Your task to perform on an android device: Turn on the flashlight Image 0: 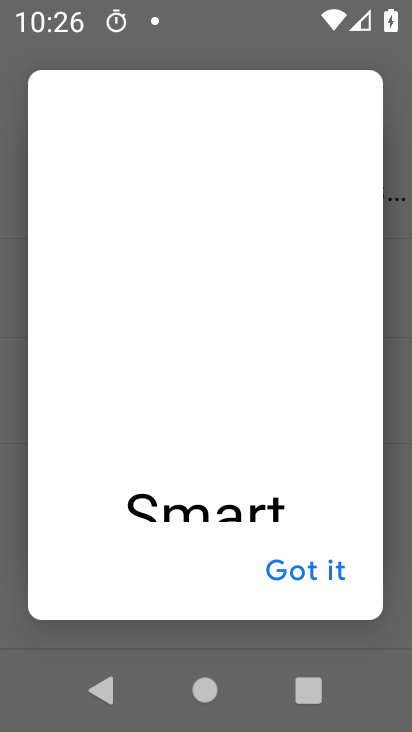
Step 0: press back button
Your task to perform on an android device: Turn on the flashlight Image 1: 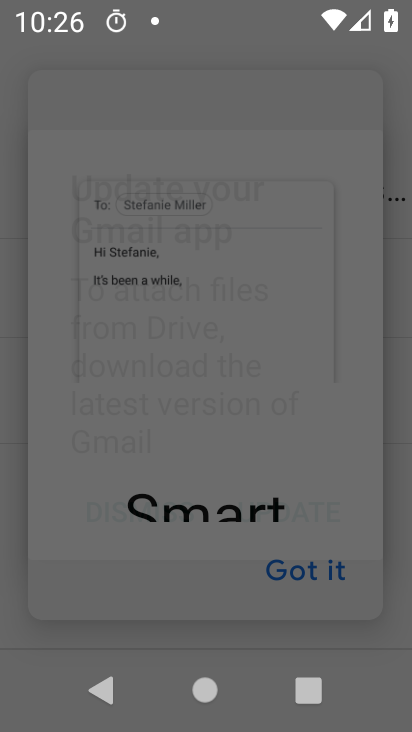
Step 1: press home button
Your task to perform on an android device: Turn on the flashlight Image 2: 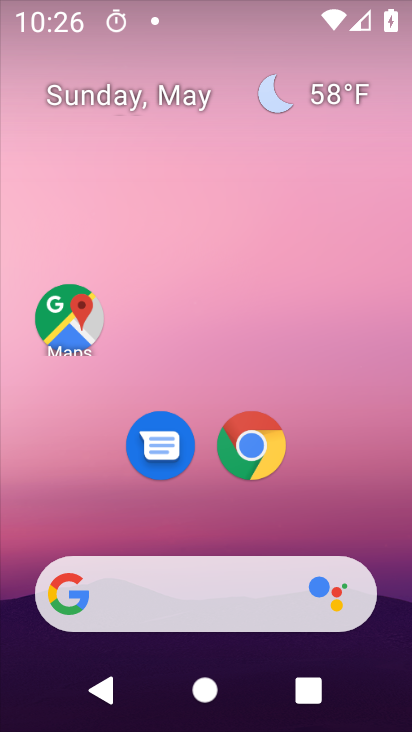
Step 2: drag from (343, 528) to (251, 11)
Your task to perform on an android device: Turn on the flashlight Image 3: 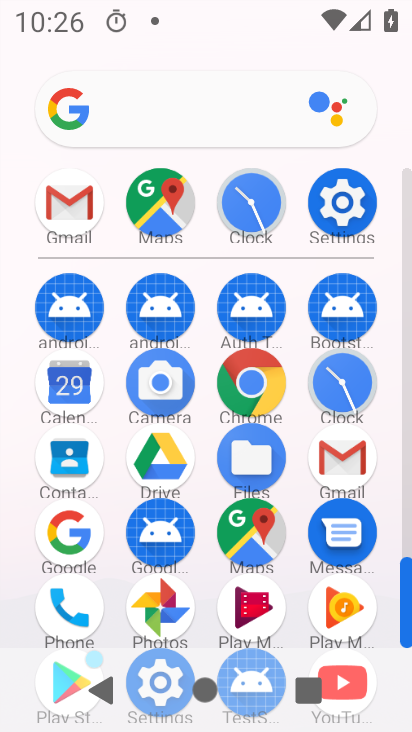
Step 3: drag from (6, 507) to (19, 237)
Your task to perform on an android device: Turn on the flashlight Image 4: 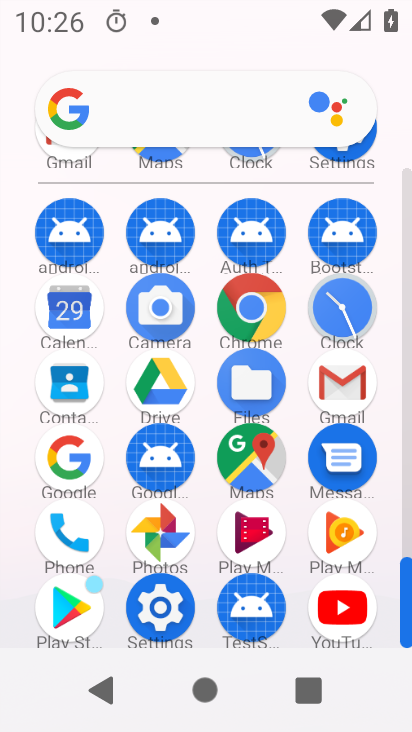
Step 4: click (165, 603)
Your task to perform on an android device: Turn on the flashlight Image 5: 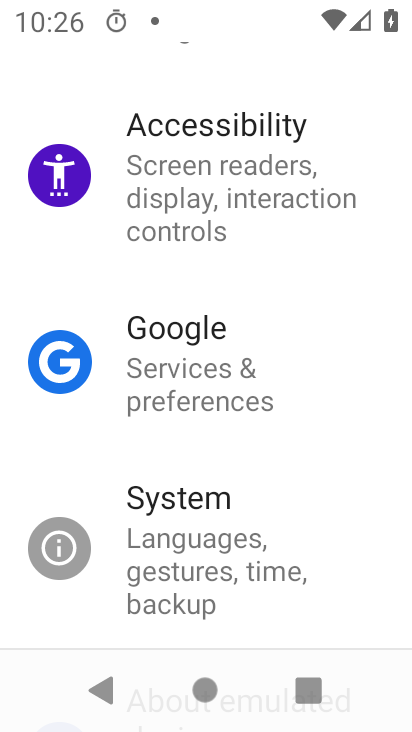
Step 5: drag from (273, 153) to (284, 608)
Your task to perform on an android device: Turn on the flashlight Image 6: 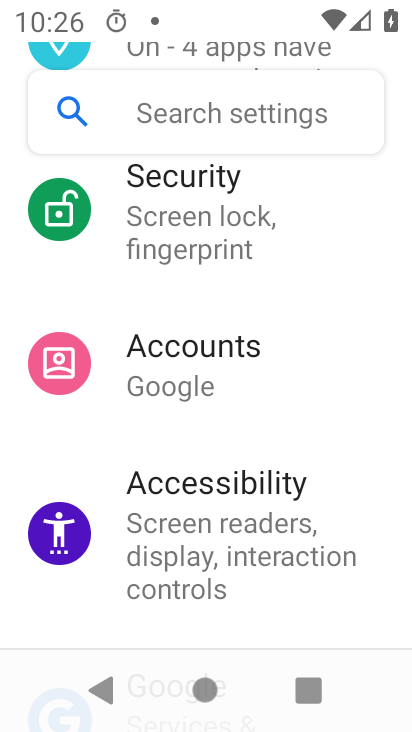
Step 6: drag from (287, 217) to (292, 545)
Your task to perform on an android device: Turn on the flashlight Image 7: 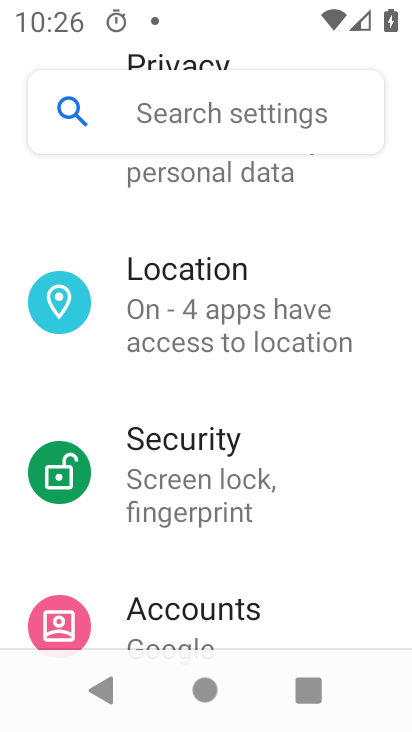
Step 7: drag from (319, 179) to (293, 584)
Your task to perform on an android device: Turn on the flashlight Image 8: 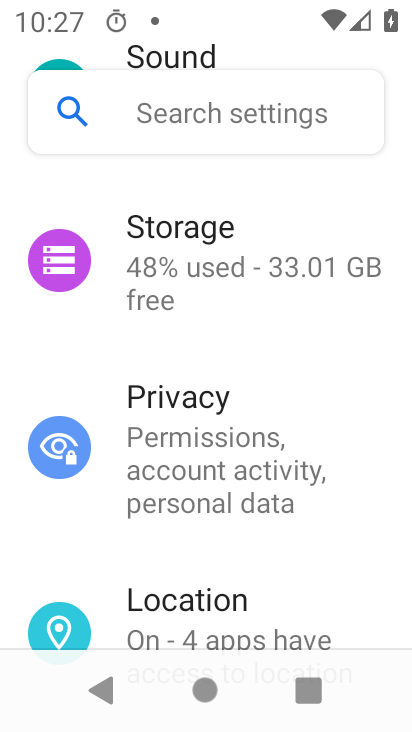
Step 8: drag from (299, 257) to (299, 606)
Your task to perform on an android device: Turn on the flashlight Image 9: 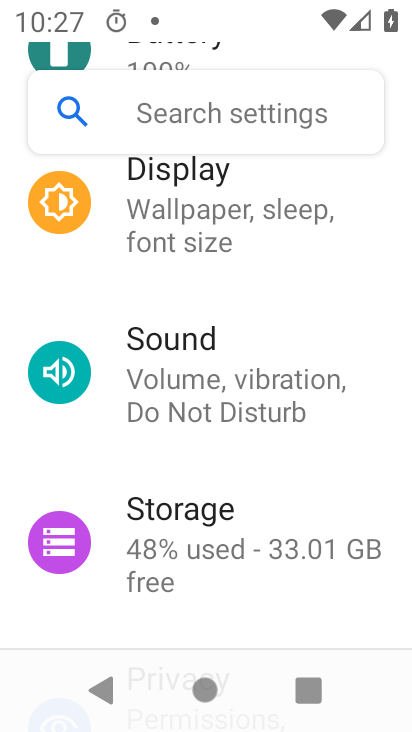
Step 9: drag from (295, 189) to (308, 604)
Your task to perform on an android device: Turn on the flashlight Image 10: 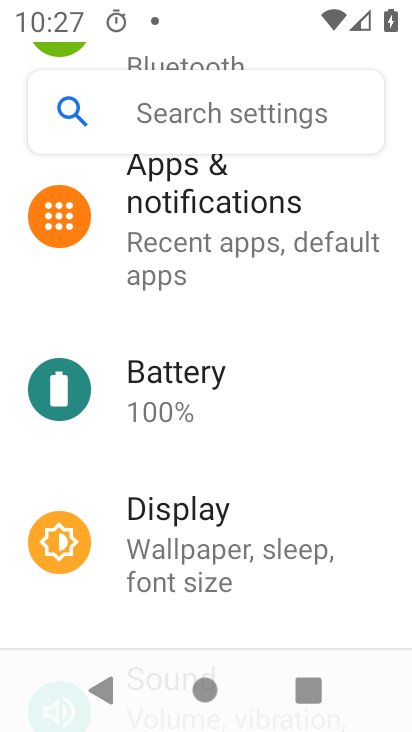
Step 10: drag from (326, 244) to (326, 638)
Your task to perform on an android device: Turn on the flashlight Image 11: 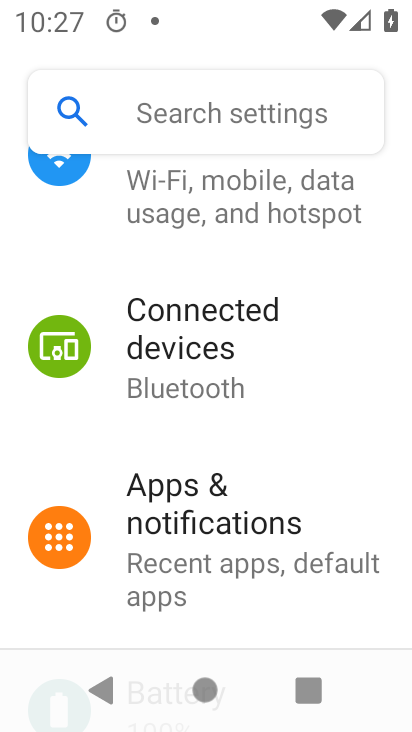
Step 11: drag from (326, 209) to (298, 551)
Your task to perform on an android device: Turn on the flashlight Image 12: 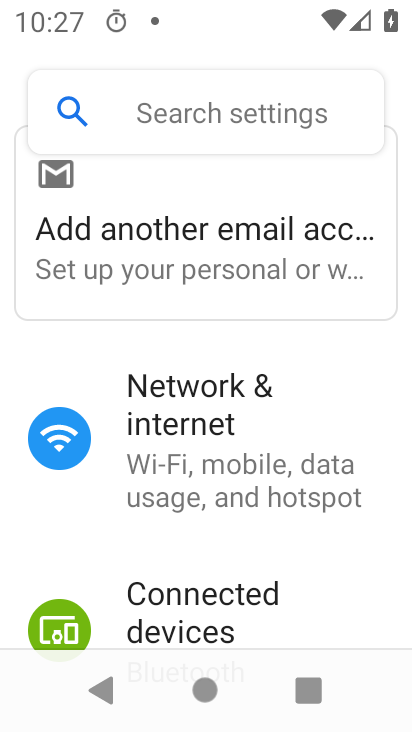
Step 12: click (260, 418)
Your task to perform on an android device: Turn on the flashlight Image 13: 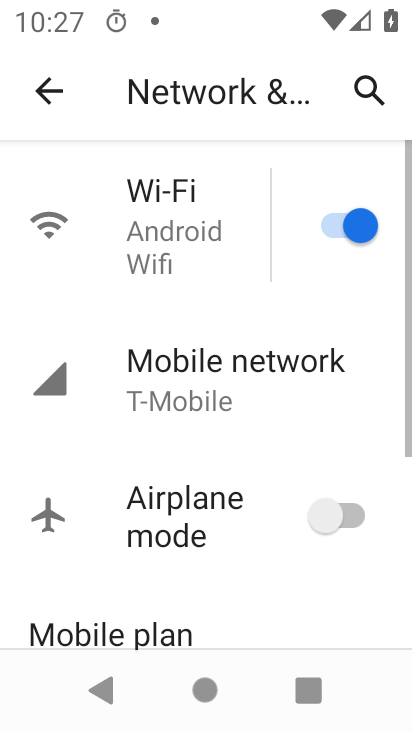
Step 13: drag from (243, 514) to (225, 94)
Your task to perform on an android device: Turn on the flashlight Image 14: 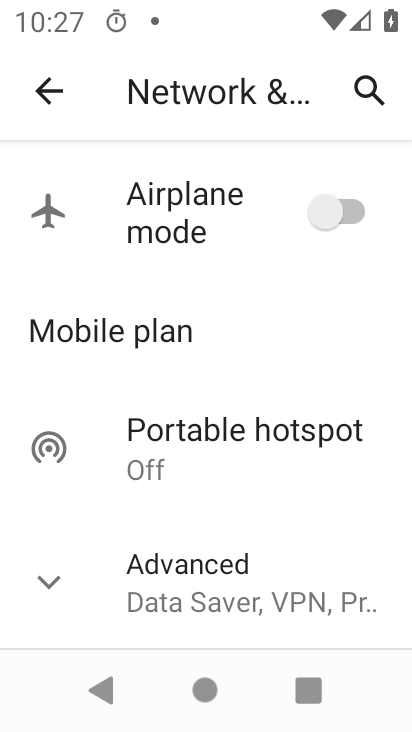
Step 14: drag from (209, 513) to (204, 175)
Your task to perform on an android device: Turn on the flashlight Image 15: 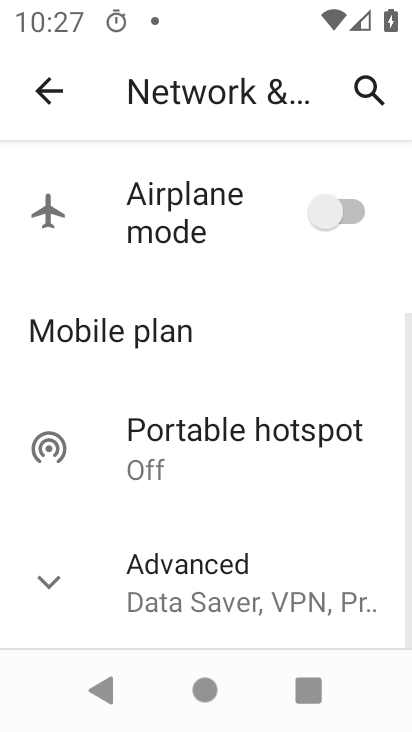
Step 15: click (59, 566)
Your task to perform on an android device: Turn on the flashlight Image 16: 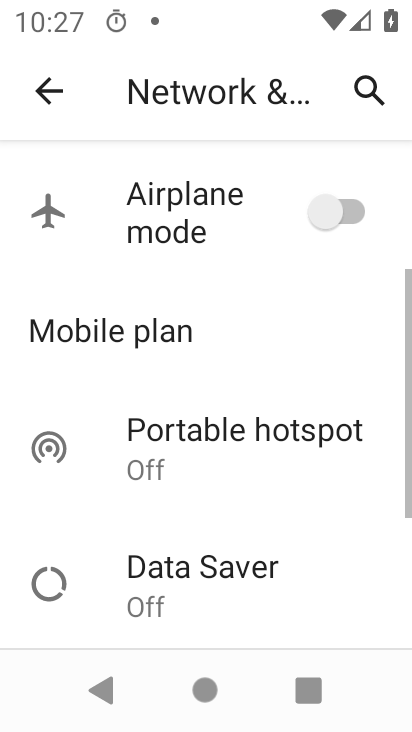
Step 16: task complete